Your task to perform on an android device: Open Google Maps Image 0: 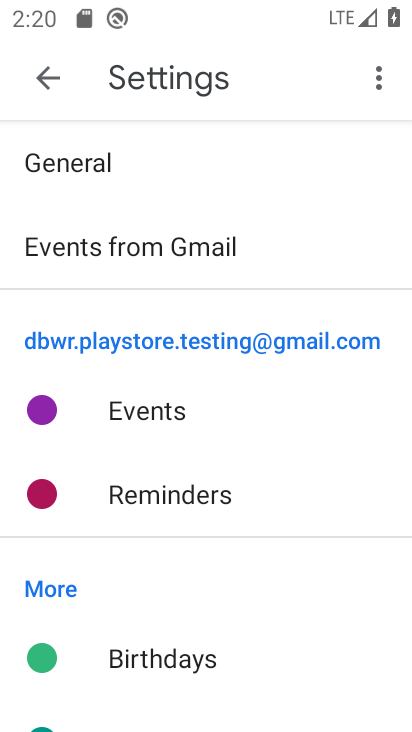
Step 0: press home button
Your task to perform on an android device: Open Google Maps Image 1: 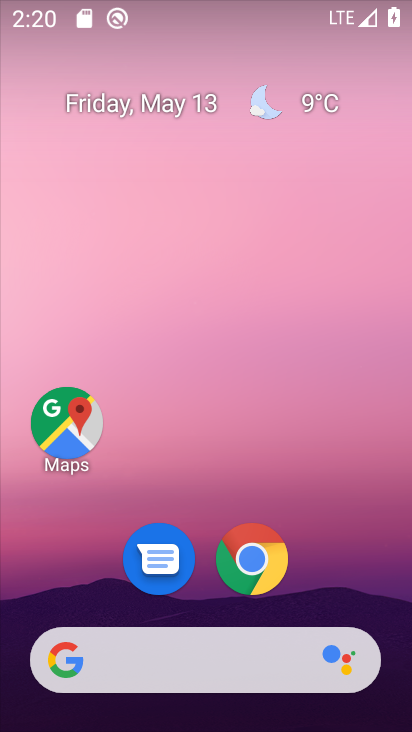
Step 1: click (64, 425)
Your task to perform on an android device: Open Google Maps Image 2: 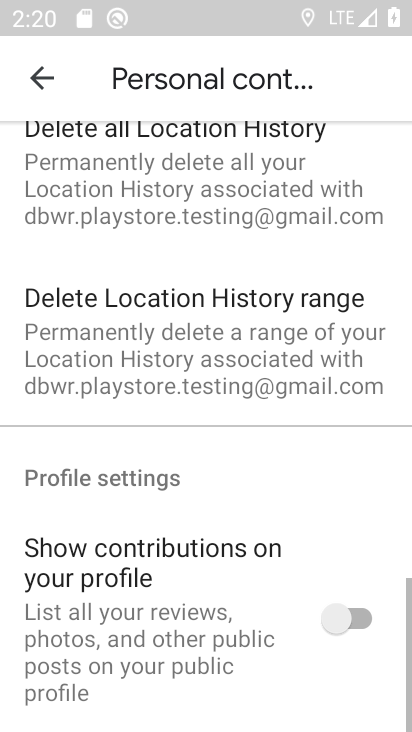
Step 2: click (78, 430)
Your task to perform on an android device: Open Google Maps Image 3: 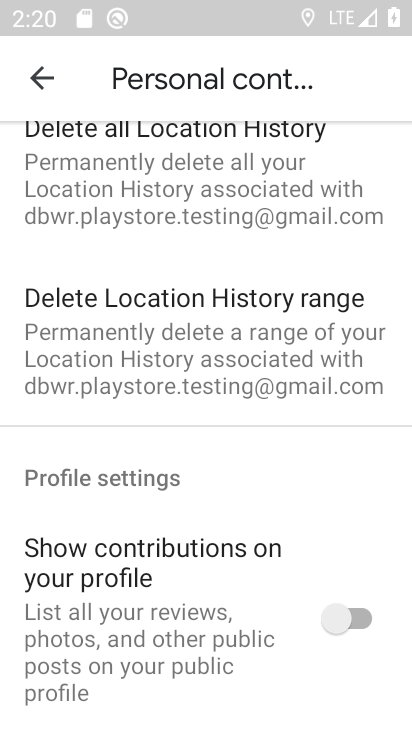
Step 3: drag from (267, 181) to (255, 445)
Your task to perform on an android device: Open Google Maps Image 4: 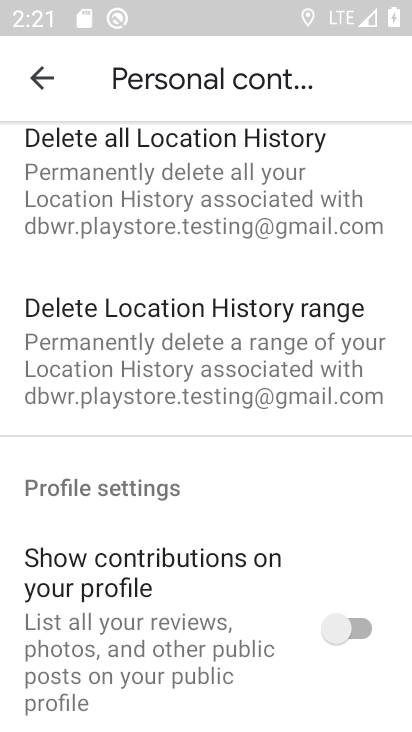
Step 4: click (48, 79)
Your task to perform on an android device: Open Google Maps Image 5: 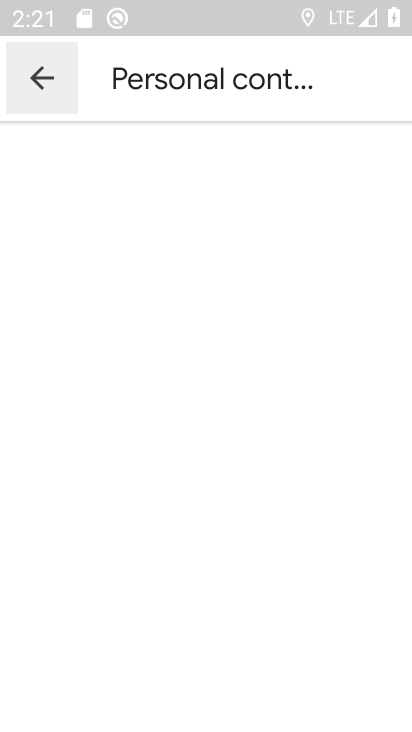
Step 5: click (29, 72)
Your task to perform on an android device: Open Google Maps Image 6: 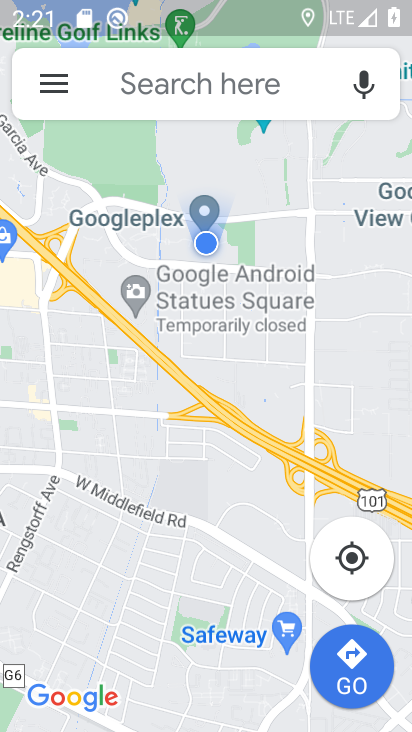
Step 6: task complete